Your task to perform on an android device: manage bookmarks in the chrome app Image 0: 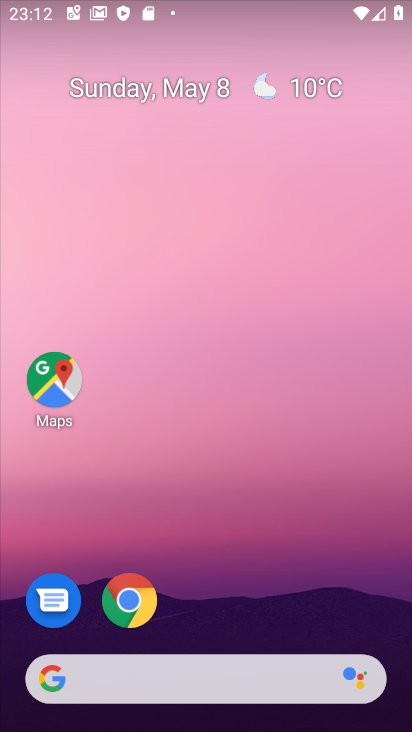
Step 0: click (129, 605)
Your task to perform on an android device: manage bookmarks in the chrome app Image 1: 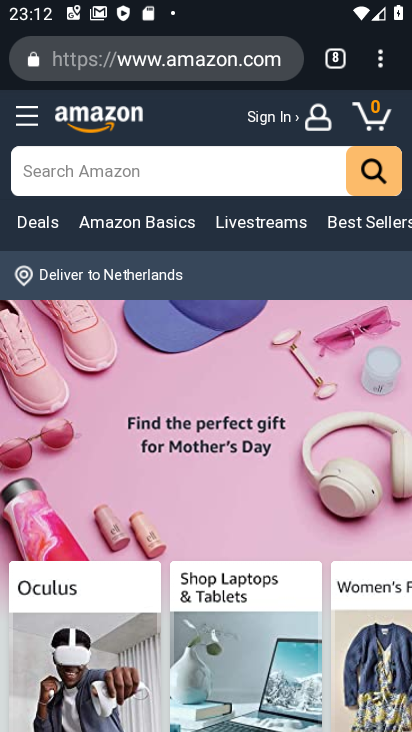
Step 1: click (371, 49)
Your task to perform on an android device: manage bookmarks in the chrome app Image 2: 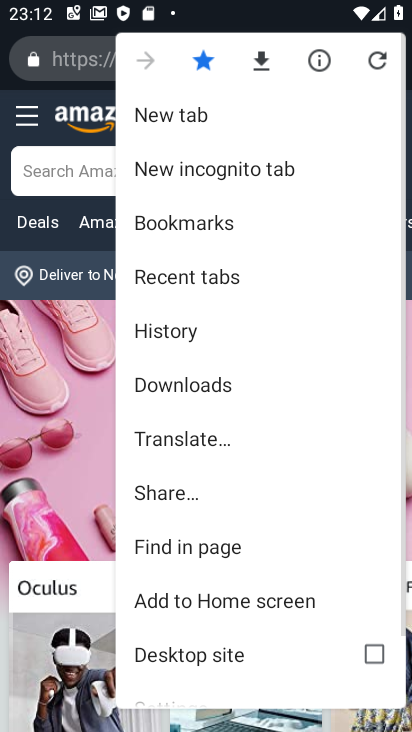
Step 2: click (231, 204)
Your task to perform on an android device: manage bookmarks in the chrome app Image 3: 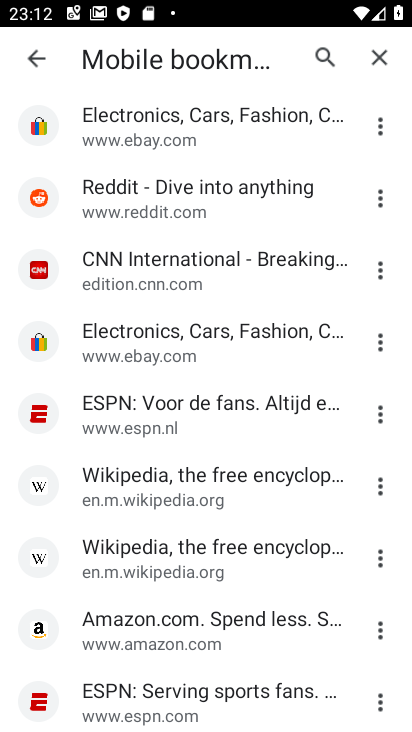
Step 3: click (384, 115)
Your task to perform on an android device: manage bookmarks in the chrome app Image 4: 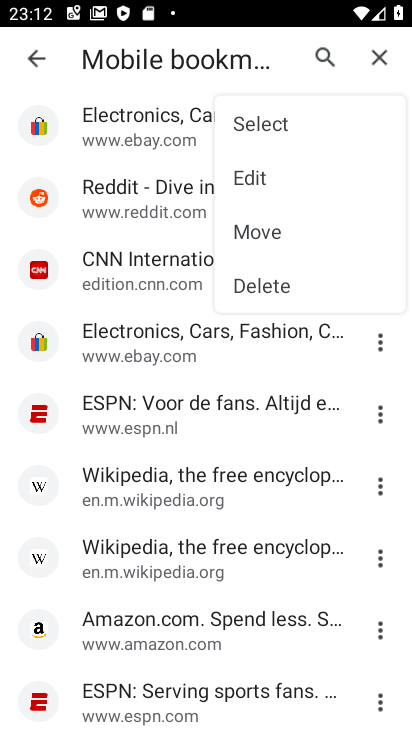
Step 4: click (260, 279)
Your task to perform on an android device: manage bookmarks in the chrome app Image 5: 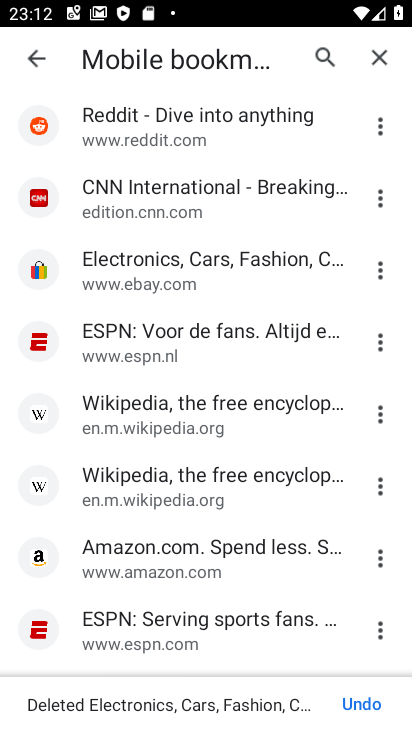
Step 5: task complete